Your task to perform on an android device: Search for Italian restaurants on Maps Image 0: 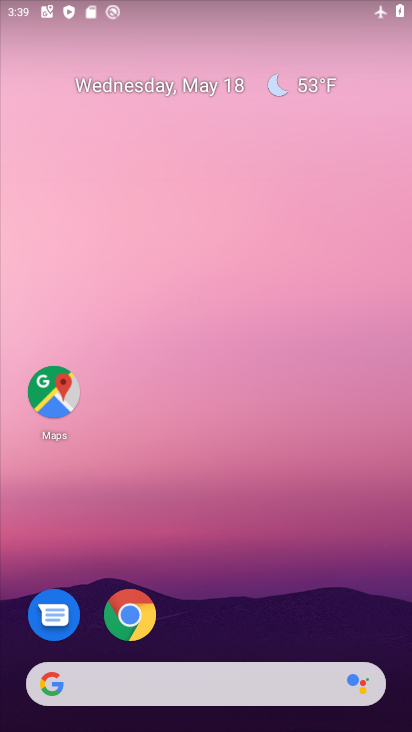
Step 0: click (41, 390)
Your task to perform on an android device: Search for Italian restaurants on Maps Image 1: 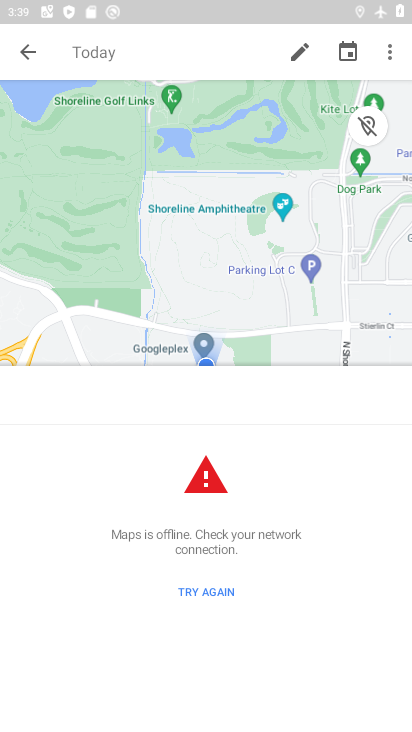
Step 1: click (26, 51)
Your task to perform on an android device: Search for Italian restaurants on Maps Image 2: 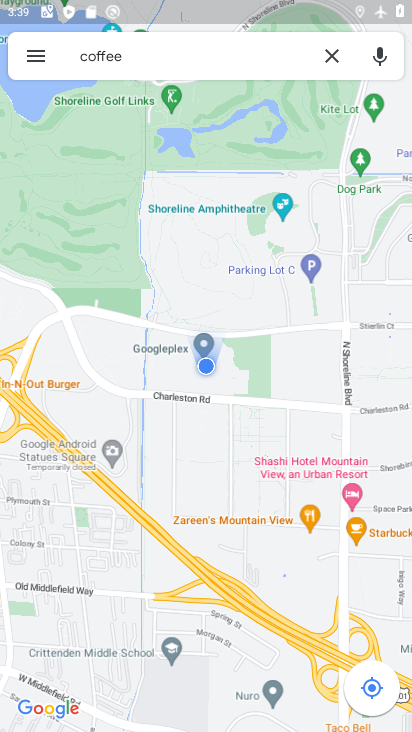
Step 2: click (141, 49)
Your task to perform on an android device: Search for Italian restaurants on Maps Image 3: 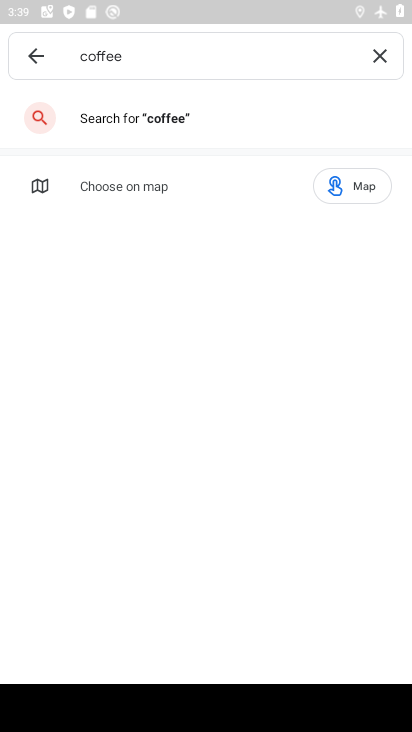
Step 3: click (373, 53)
Your task to perform on an android device: Search for Italian restaurants on Maps Image 4: 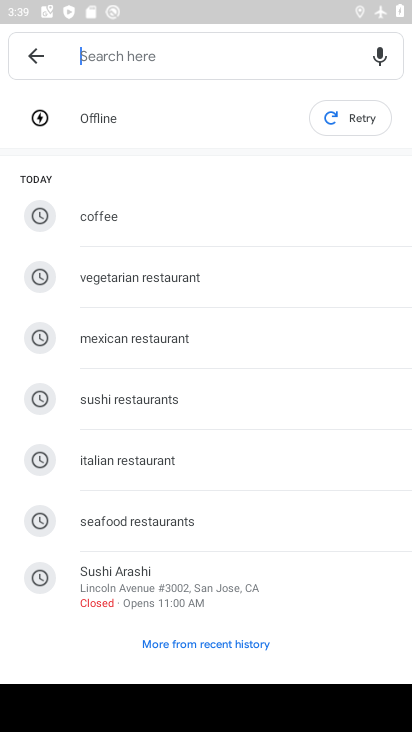
Step 4: click (202, 456)
Your task to perform on an android device: Search for Italian restaurants on Maps Image 5: 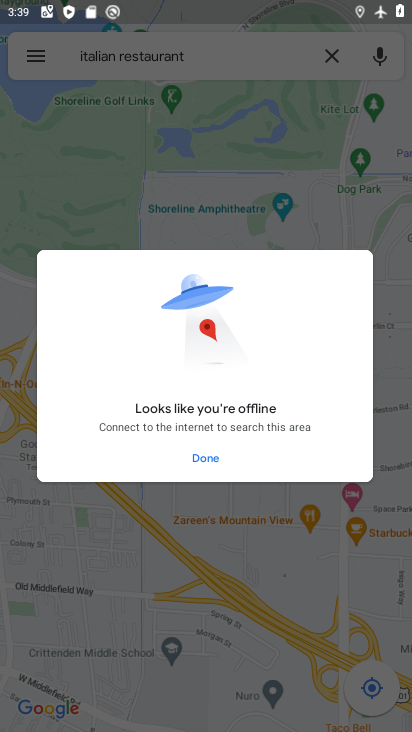
Step 5: task complete